Your task to perform on an android device: Go to wifi settings Image 0: 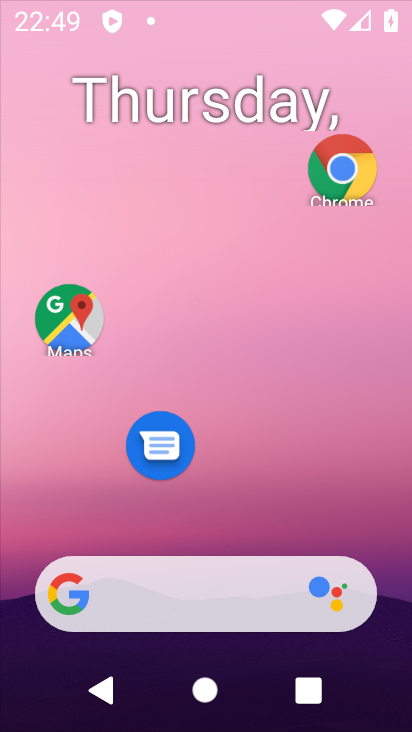
Step 0: drag from (322, 127) to (222, 142)
Your task to perform on an android device: Go to wifi settings Image 1: 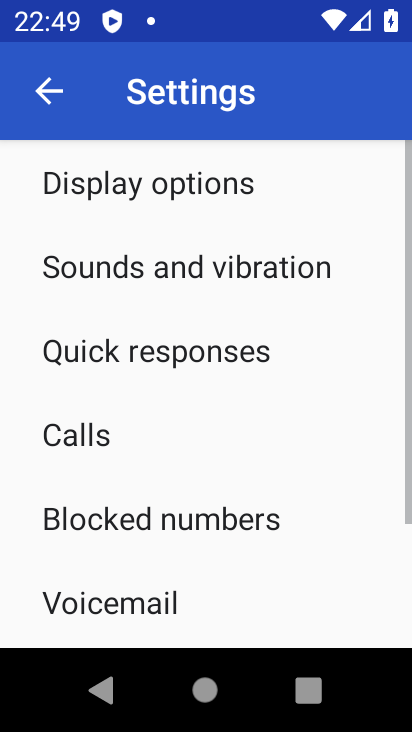
Step 1: press home button
Your task to perform on an android device: Go to wifi settings Image 2: 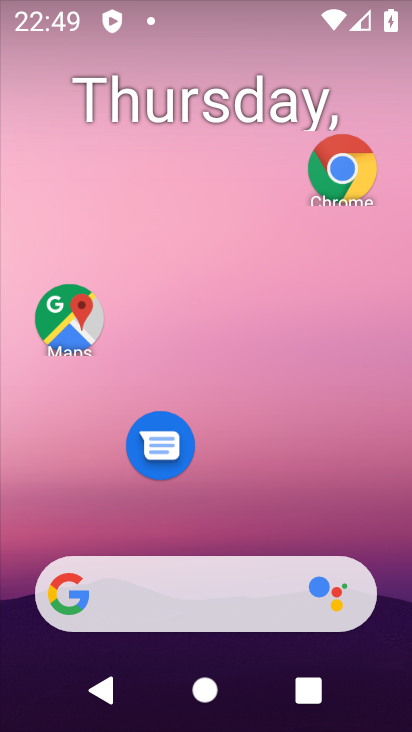
Step 2: drag from (203, 559) to (216, 254)
Your task to perform on an android device: Go to wifi settings Image 3: 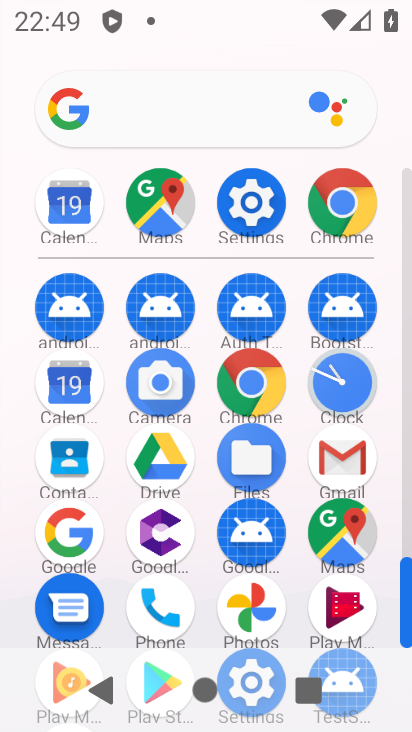
Step 3: click (259, 215)
Your task to perform on an android device: Go to wifi settings Image 4: 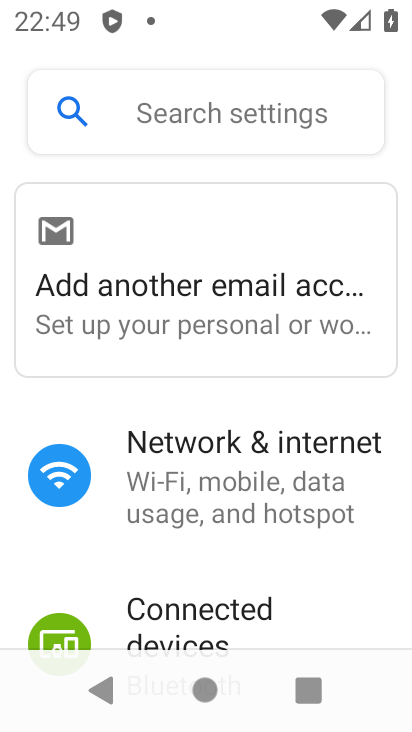
Step 4: drag from (250, 582) to (246, 309)
Your task to perform on an android device: Go to wifi settings Image 5: 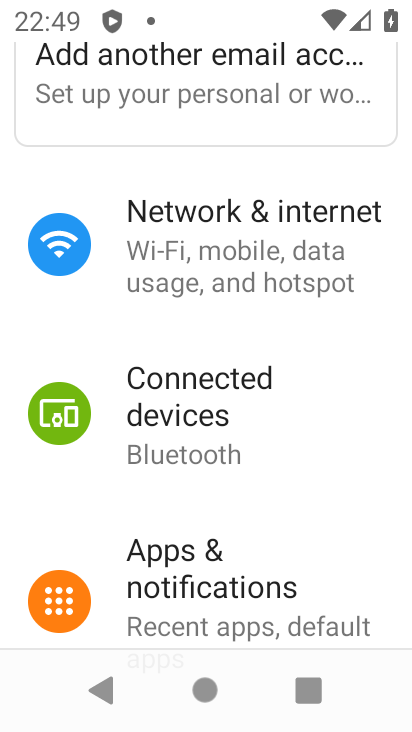
Step 5: click (170, 210)
Your task to perform on an android device: Go to wifi settings Image 6: 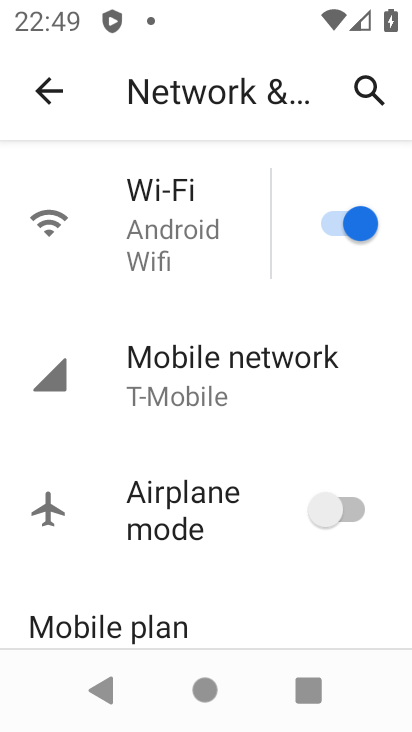
Step 6: click (208, 239)
Your task to perform on an android device: Go to wifi settings Image 7: 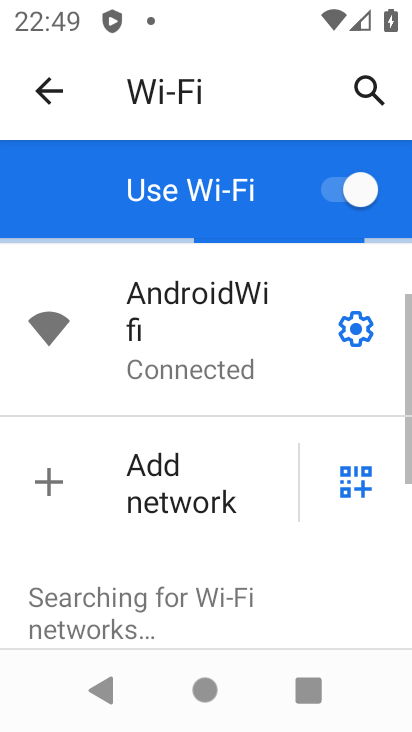
Step 7: drag from (249, 460) to (253, 117)
Your task to perform on an android device: Go to wifi settings Image 8: 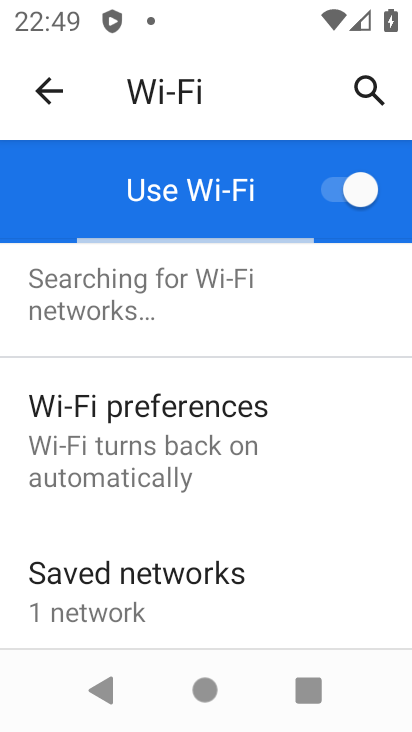
Step 8: drag from (178, 378) to (313, 699)
Your task to perform on an android device: Go to wifi settings Image 9: 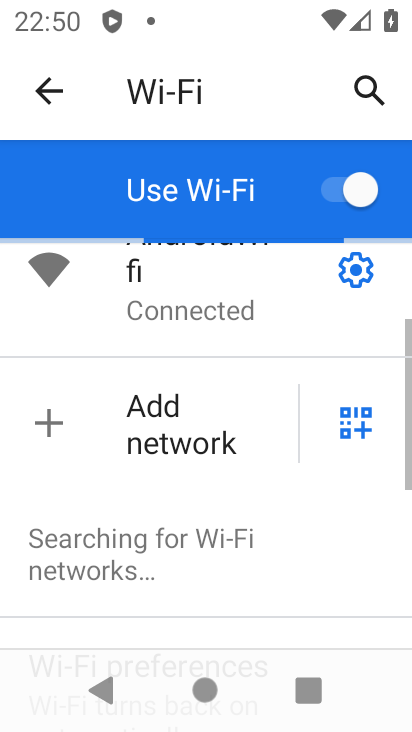
Step 9: drag from (217, 341) to (300, 674)
Your task to perform on an android device: Go to wifi settings Image 10: 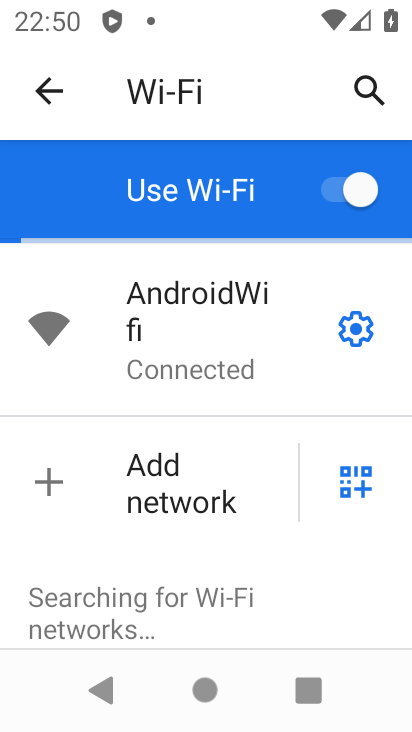
Step 10: click (353, 323)
Your task to perform on an android device: Go to wifi settings Image 11: 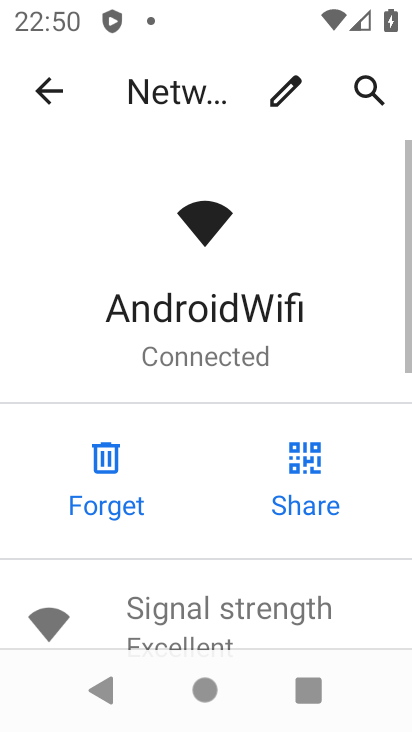
Step 11: task complete